Your task to perform on an android device: Is it going to rain tomorrow? Image 0: 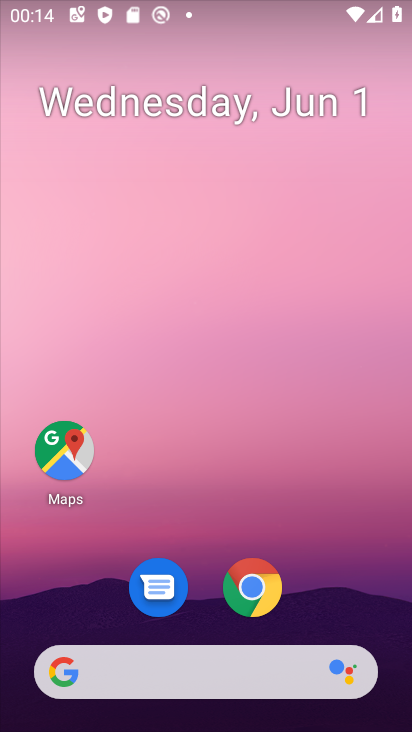
Step 0: click (179, 668)
Your task to perform on an android device: Is it going to rain tomorrow? Image 1: 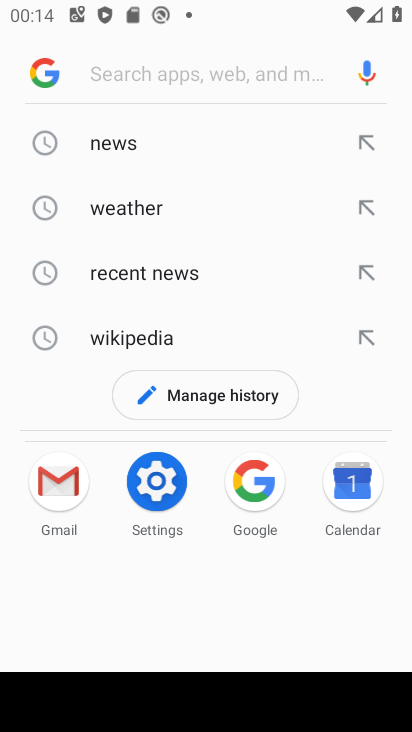
Step 1: type "is it going to rain tommorrow"
Your task to perform on an android device: Is it going to rain tomorrow? Image 2: 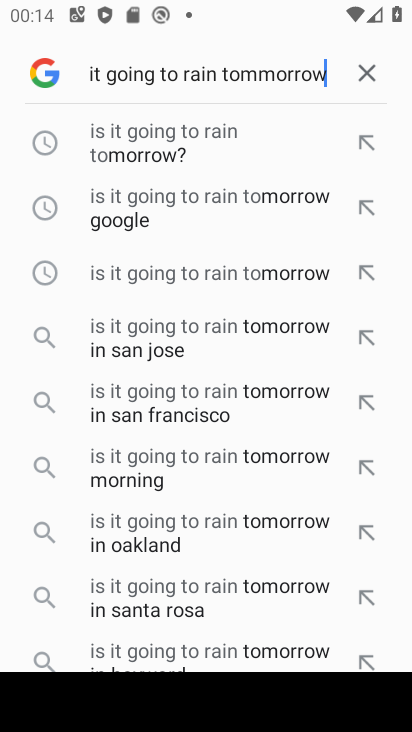
Step 2: click (173, 144)
Your task to perform on an android device: Is it going to rain tomorrow? Image 3: 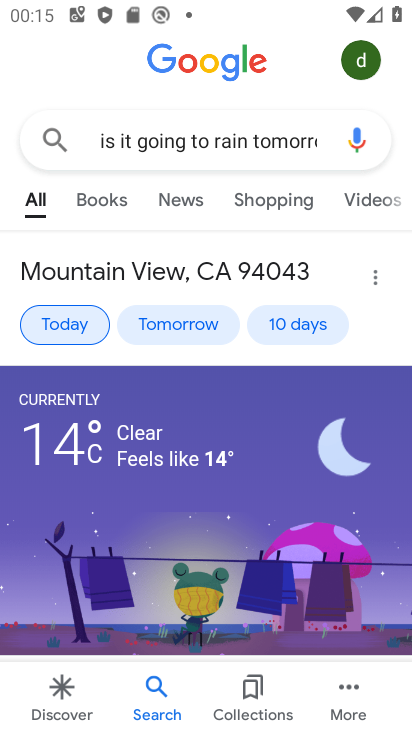
Step 3: click (171, 320)
Your task to perform on an android device: Is it going to rain tomorrow? Image 4: 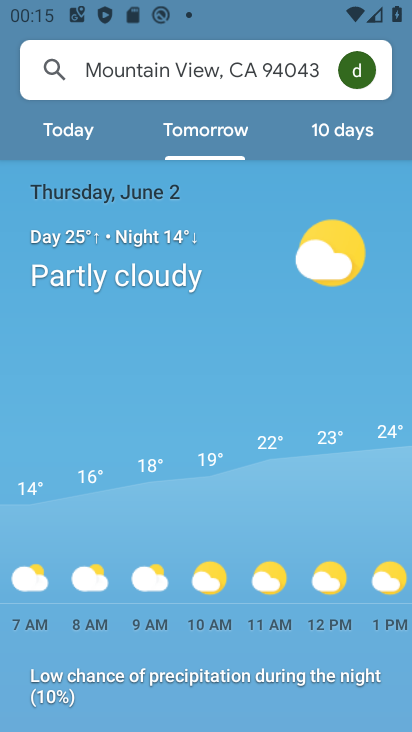
Step 4: task complete